Your task to perform on an android device: Open the Play Movies app and select the watchlist tab. Image 0: 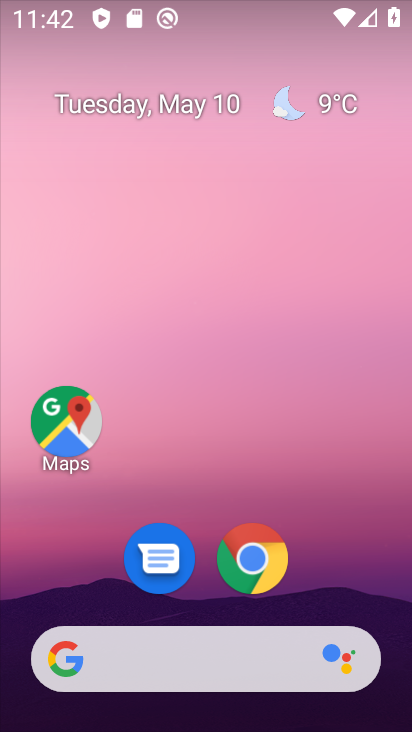
Step 0: drag from (356, 519) to (356, 207)
Your task to perform on an android device: Open the Play Movies app and select the watchlist tab. Image 1: 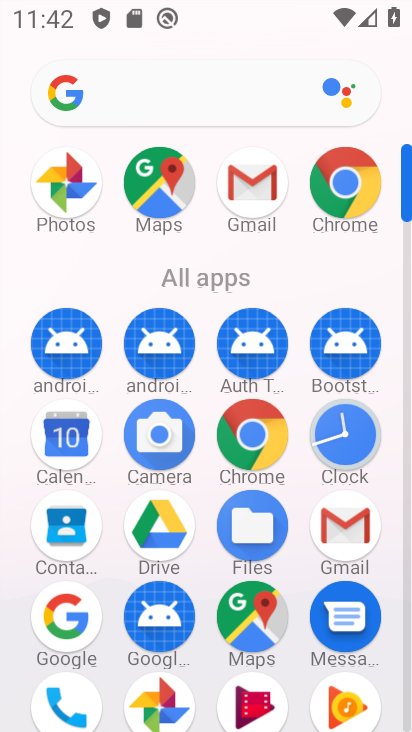
Step 1: drag from (288, 637) to (276, 346)
Your task to perform on an android device: Open the Play Movies app and select the watchlist tab. Image 2: 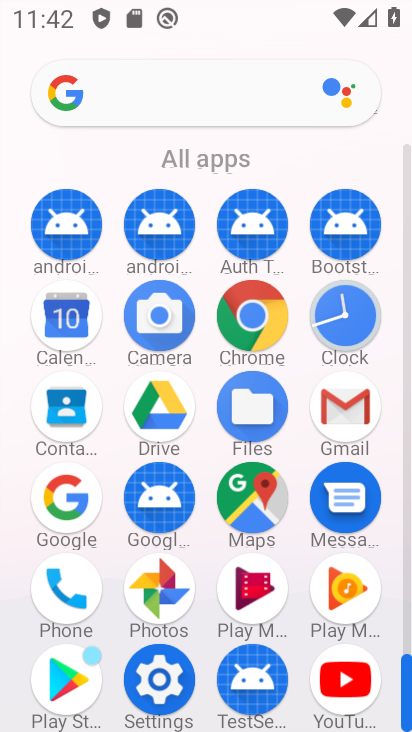
Step 2: click (256, 591)
Your task to perform on an android device: Open the Play Movies app and select the watchlist tab. Image 3: 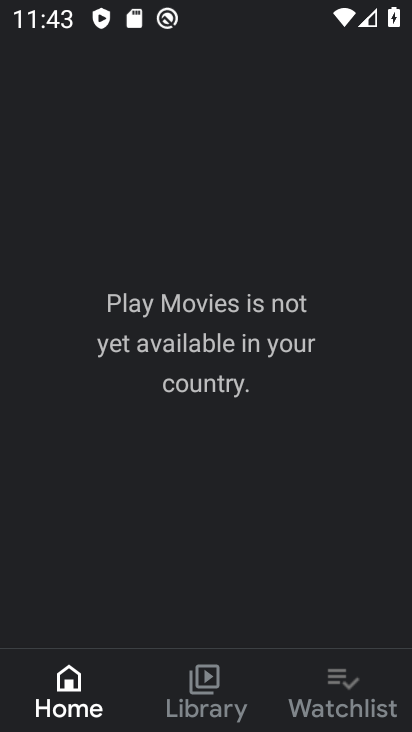
Step 3: click (336, 676)
Your task to perform on an android device: Open the Play Movies app and select the watchlist tab. Image 4: 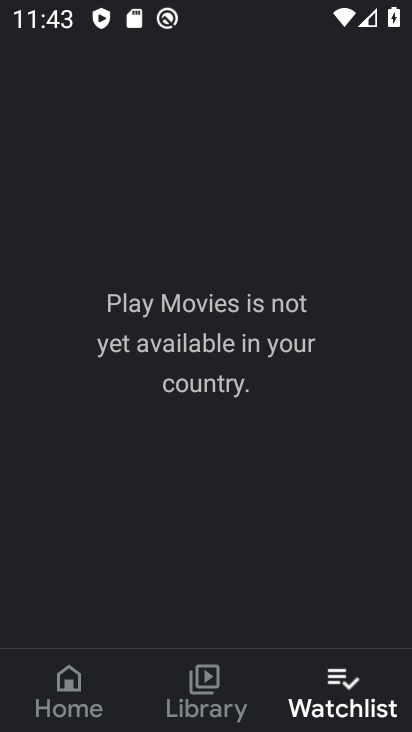
Step 4: task complete